Your task to perform on an android device: turn on airplane mode Image 0: 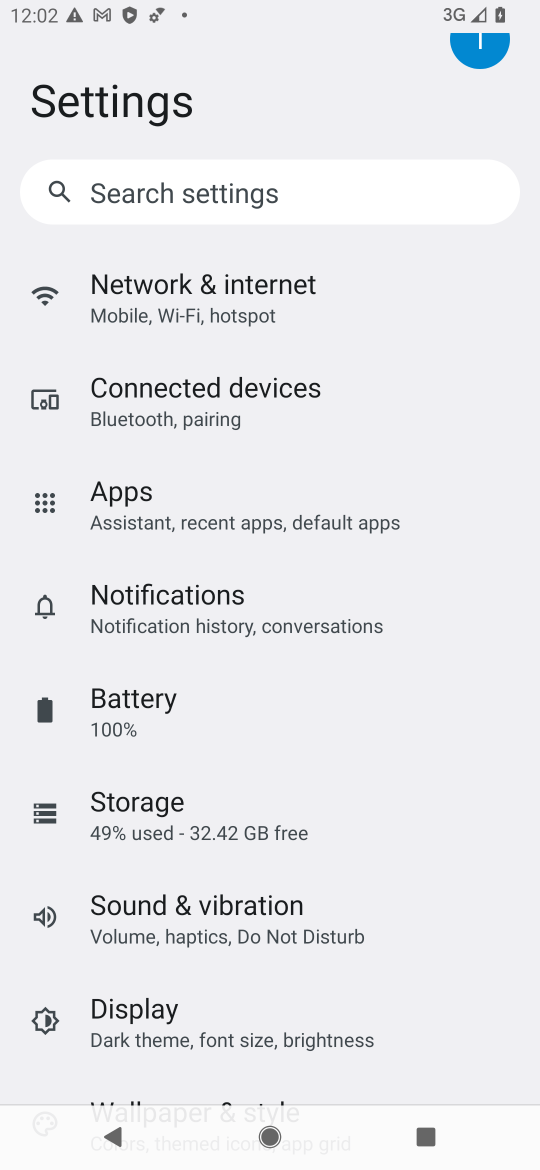
Step 0: click (228, 301)
Your task to perform on an android device: turn on airplane mode Image 1: 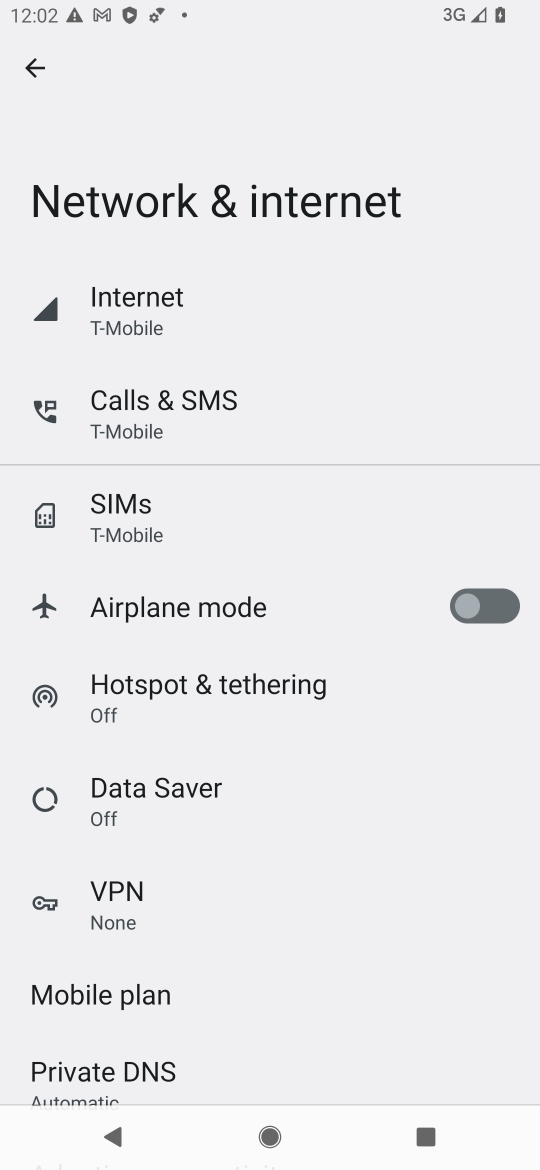
Step 1: click (487, 607)
Your task to perform on an android device: turn on airplane mode Image 2: 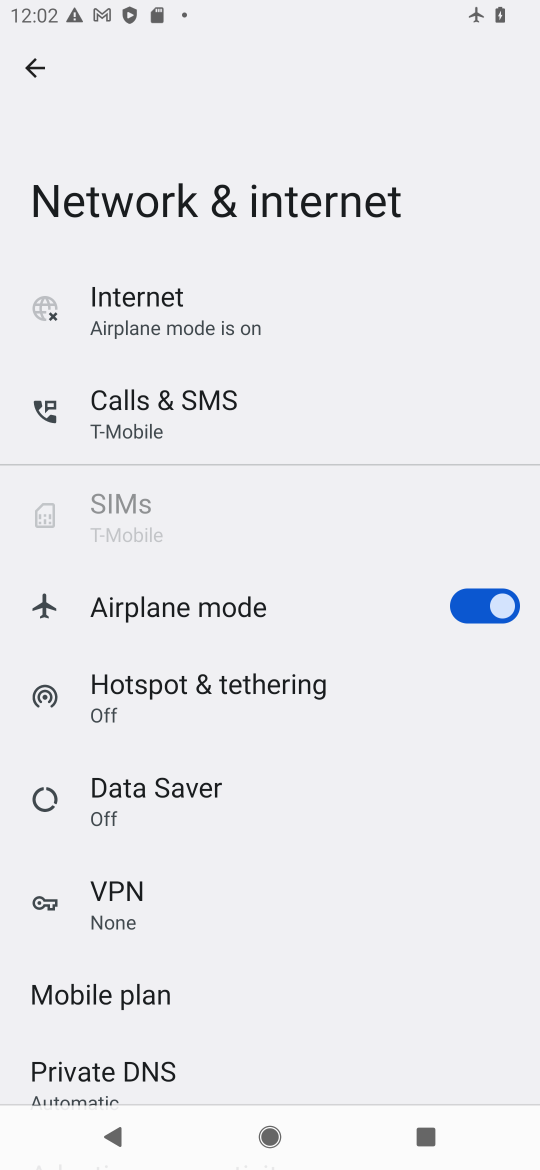
Step 2: task complete